Your task to perform on an android device: see creations saved in the google photos Image 0: 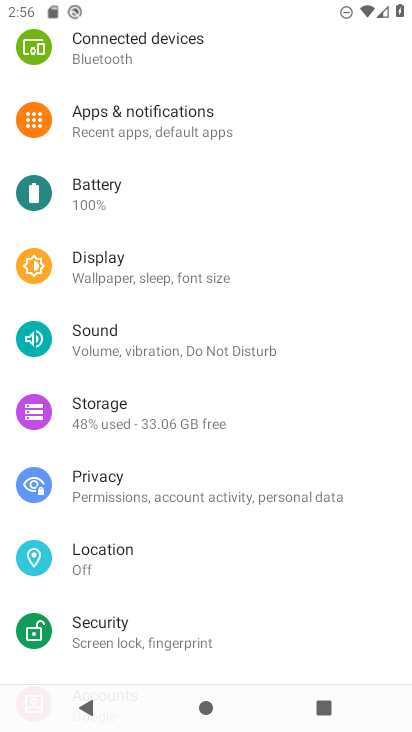
Step 0: press home button
Your task to perform on an android device: see creations saved in the google photos Image 1: 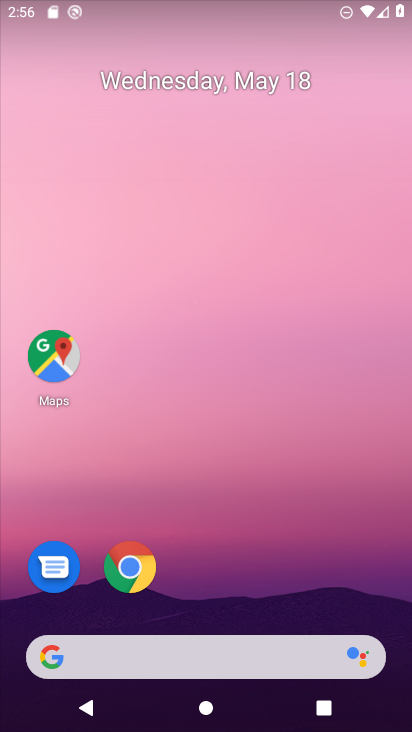
Step 1: click (144, 677)
Your task to perform on an android device: see creations saved in the google photos Image 2: 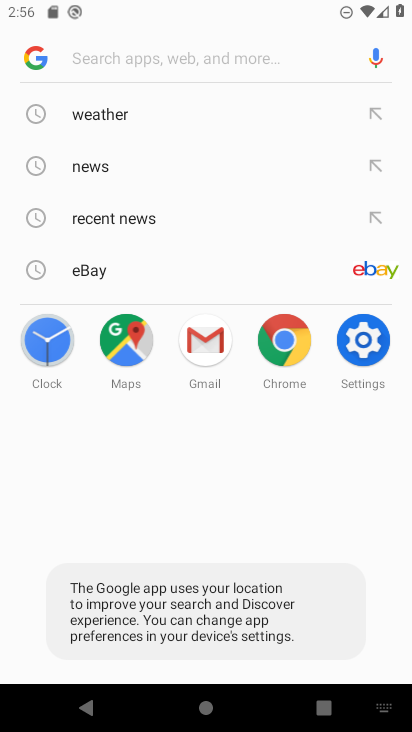
Step 2: press home button
Your task to perform on an android device: see creations saved in the google photos Image 3: 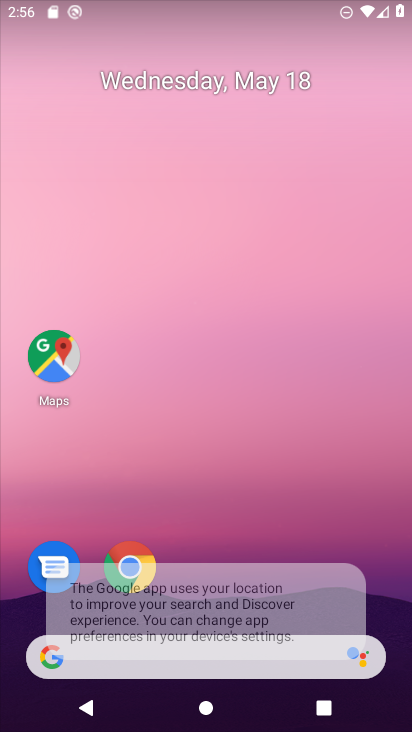
Step 3: drag from (287, 526) to (261, 43)
Your task to perform on an android device: see creations saved in the google photos Image 4: 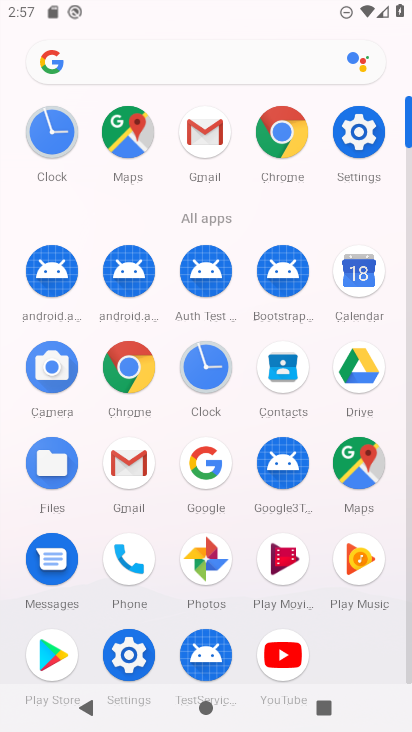
Step 4: click (210, 587)
Your task to perform on an android device: see creations saved in the google photos Image 5: 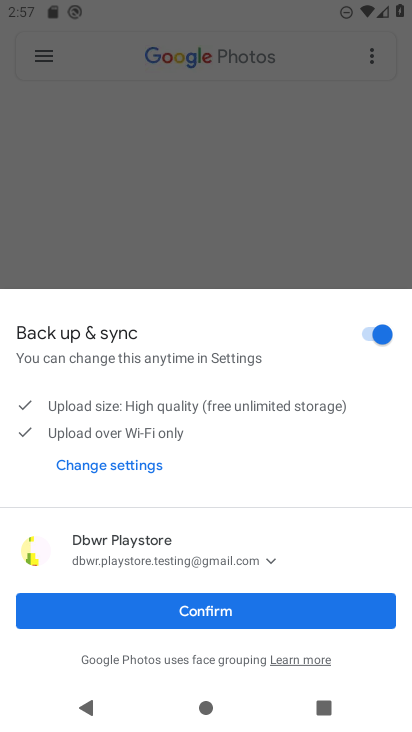
Step 5: click (214, 614)
Your task to perform on an android device: see creations saved in the google photos Image 6: 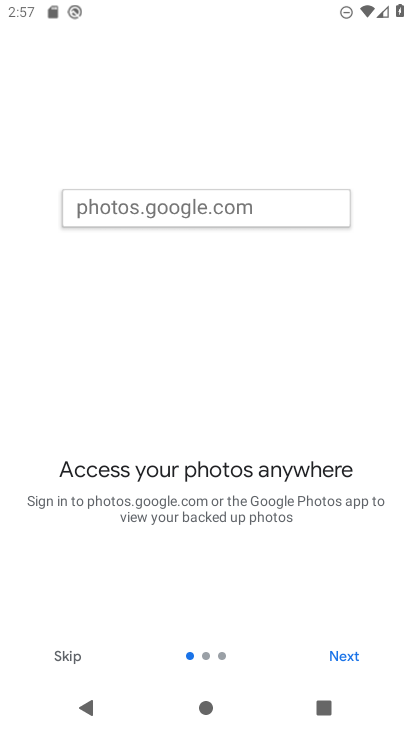
Step 6: click (352, 652)
Your task to perform on an android device: see creations saved in the google photos Image 7: 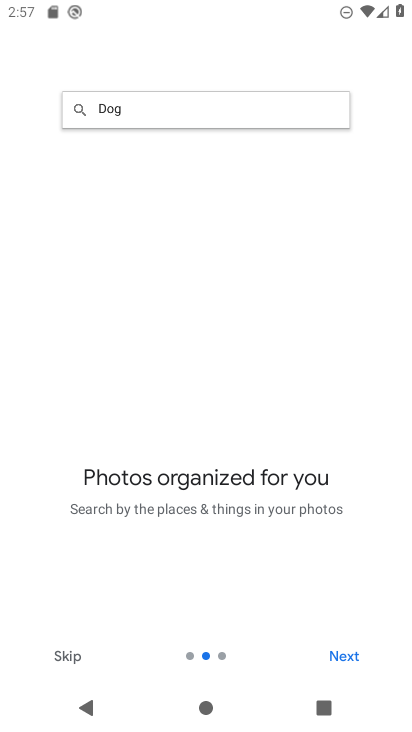
Step 7: click (344, 656)
Your task to perform on an android device: see creations saved in the google photos Image 8: 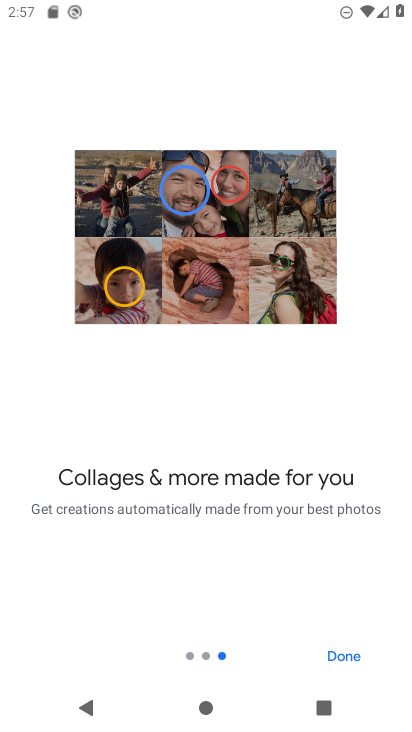
Step 8: click (343, 653)
Your task to perform on an android device: see creations saved in the google photos Image 9: 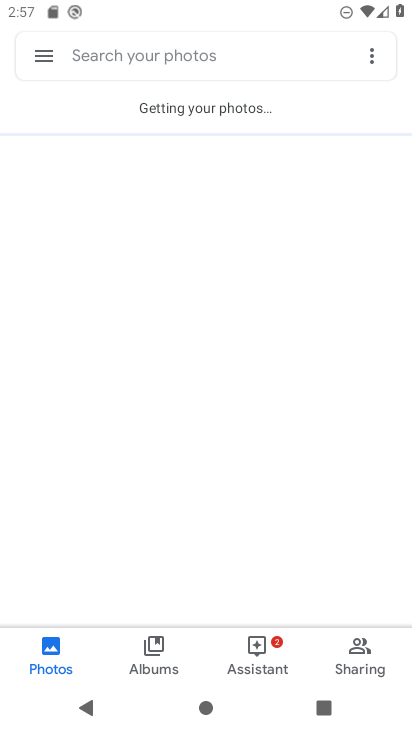
Step 9: click (160, 59)
Your task to perform on an android device: see creations saved in the google photos Image 10: 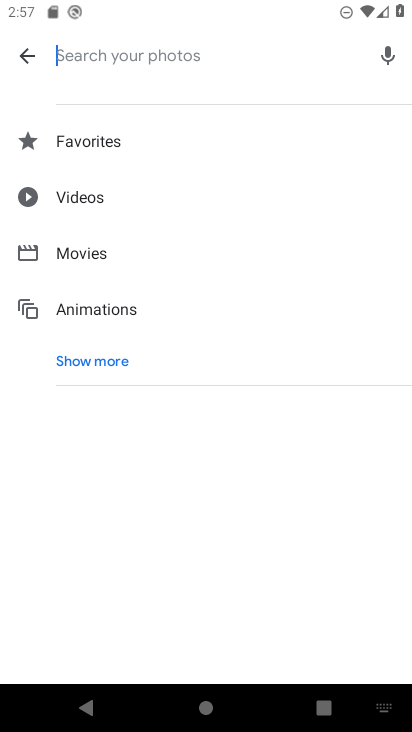
Step 10: click (99, 359)
Your task to perform on an android device: see creations saved in the google photos Image 11: 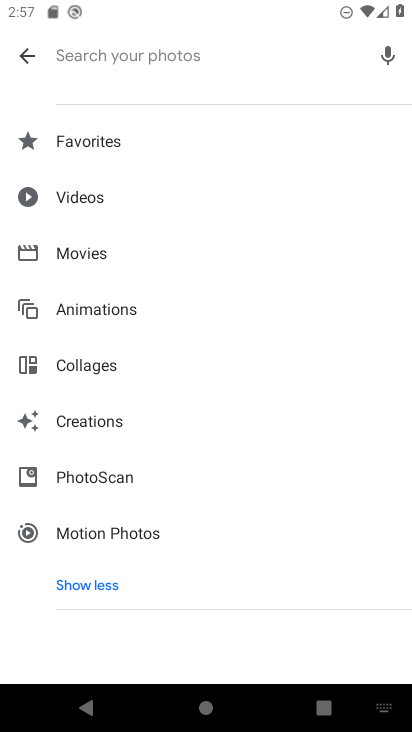
Step 11: click (87, 416)
Your task to perform on an android device: see creations saved in the google photos Image 12: 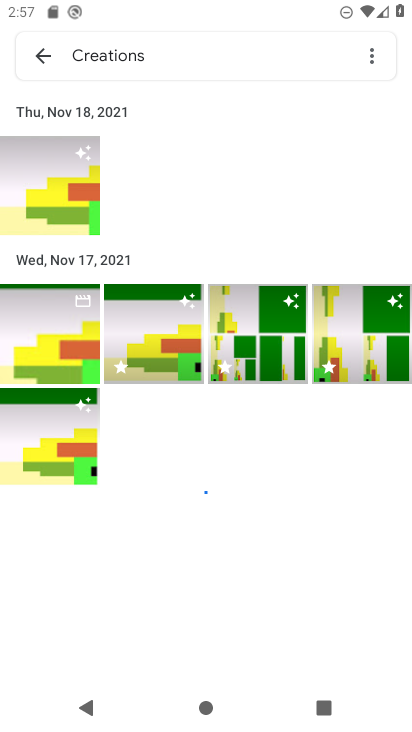
Step 12: task complete